Your task to perform on an android device: uninstall "Google Chrome" Image 0: 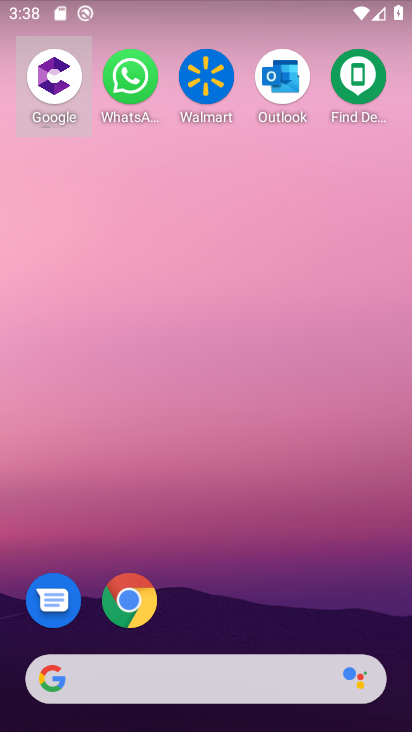
Step 0: drag from (282, 545) to (240, 85)
Your task to perform on an android device: uninstall "Google Chrome" Image 1: 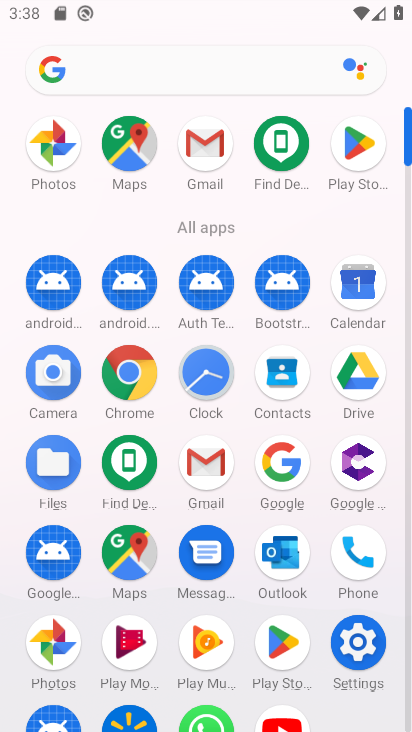
Step 1: click (130, 367)
Your task to perform on an android device: uninstall "Google Chrome" Image 2: 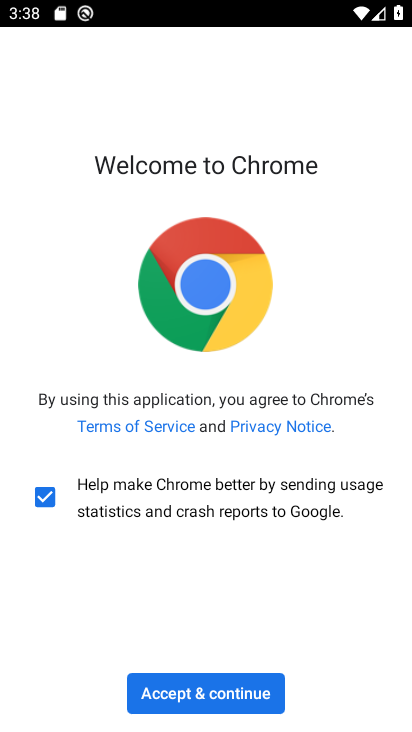
Step 2: press home button
Your task to perform on an android device: uninstall "Google Chrome" Image 3: 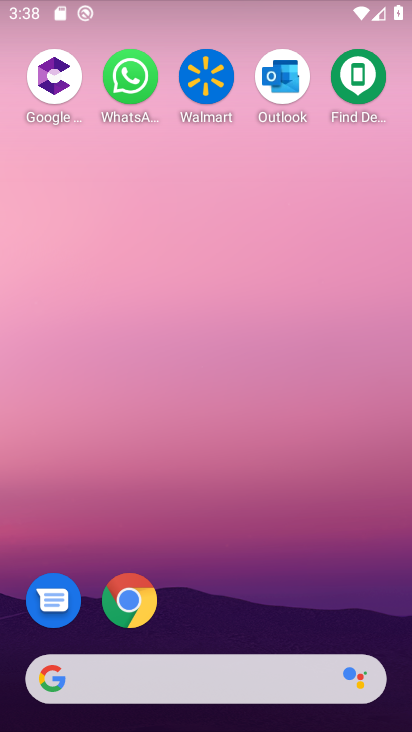
Step 3: drag from (271, 504) to (309, 71)
Your task to perform on an android device: uninstall "Google Chrome" Image 4: 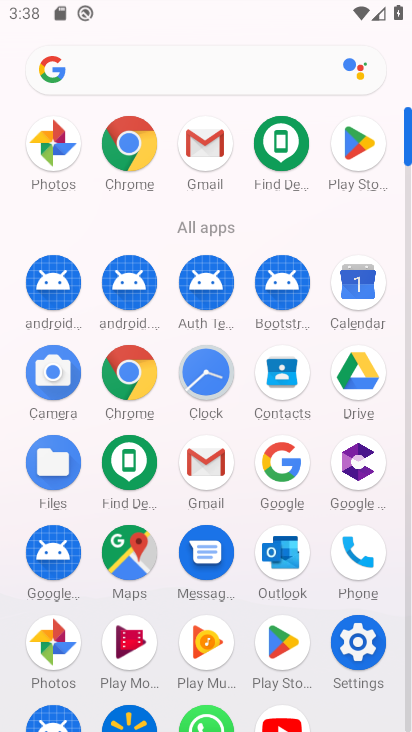
Step 4: click (347, 131)
Your task to perform on an android device: uninstall "Google Chrome" Image 5: 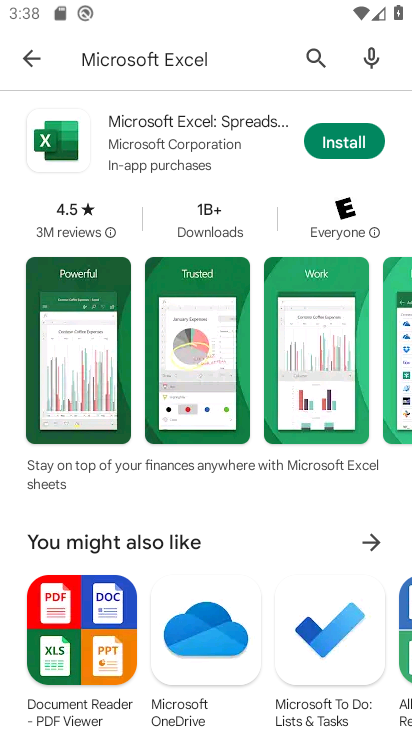
Step 5: click (233, 76)
Your task to perform on an android device: uninstall "Google Chrome" Image 6: 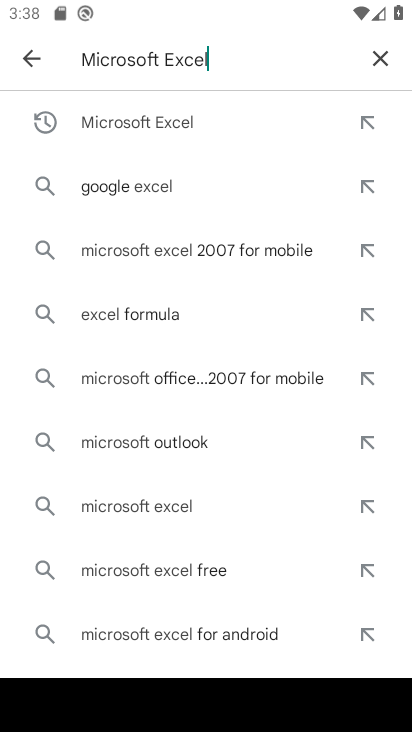
Step 6: click (381, 56)
Your task to perform on an android device: uninstall "Google Chrome" Image 7: 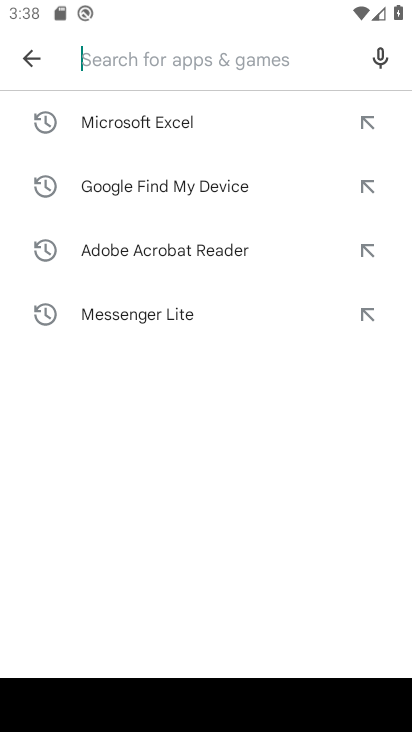
Step 7: type "Google Chrome"
Your task to perform on an android device: uninstall "Google Chrome" Image 8: 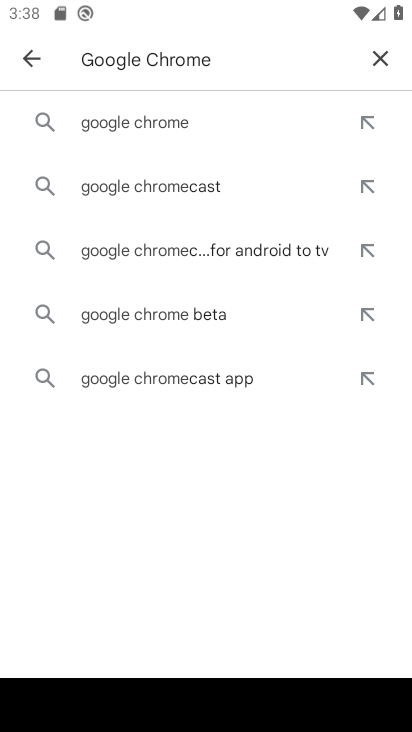
Step 8: click (186, 128)
Your task to perform on an android device: uninstall "Google Chrome" Image 9: 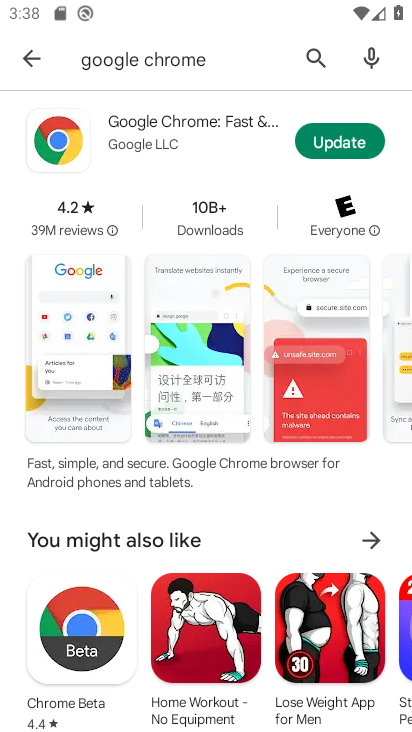
Step 9: click (108, 133)
Your task to perform on an android device: uninstall "Google Chrome" Image 10: 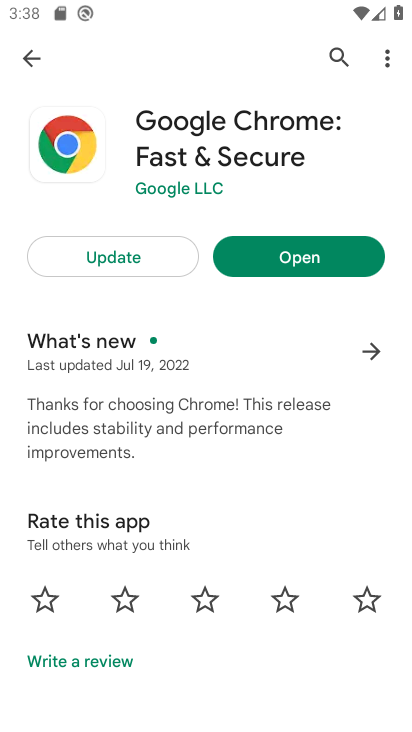
Step 10: task complete